Your task to perform on an android device: Go to network settings Image 0: 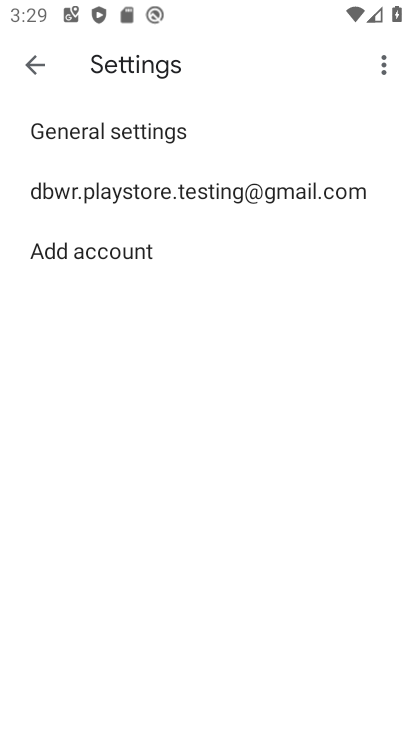
Step 0: press home button
Your task to perform on an android device: Go to network settings Image 1: 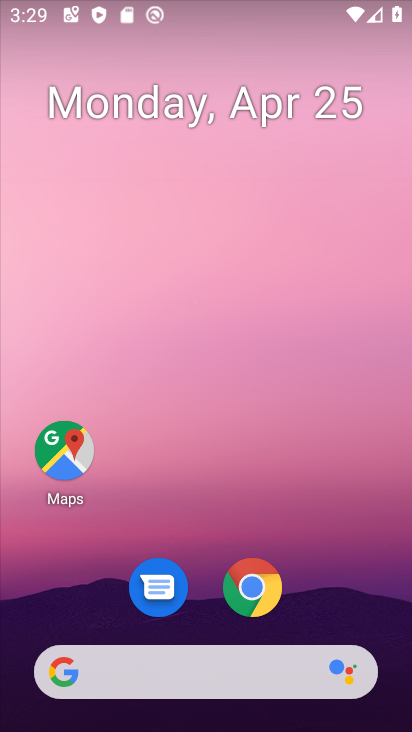
Step 1: drag from (214, 607) to (237, 111)
Your task to perform on an android device: Go to network settings Image 2: 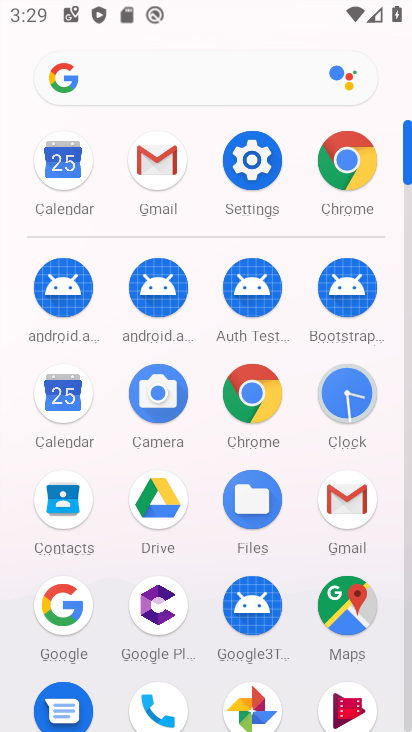
Step 2: click (251, 160)
Your task to perform on an android device: Go to network settings Image 3: 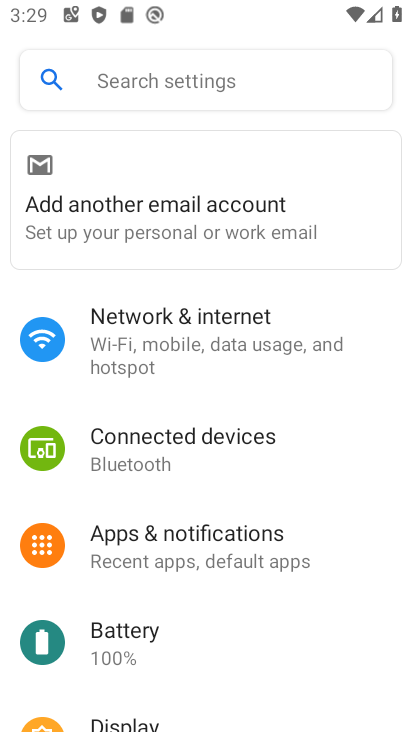
Step 3: click (184, 311)
Your task to perform on an android device: Go to network settings Image 4: 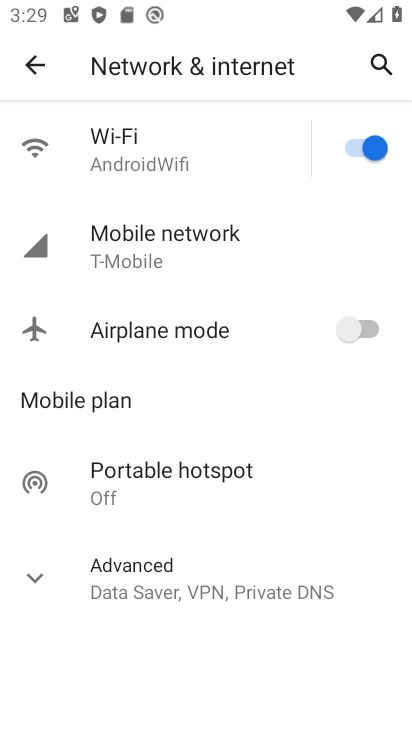
Step 4: click (162, 144)
Your task to perform on an android device: Go to network settings Image 5: 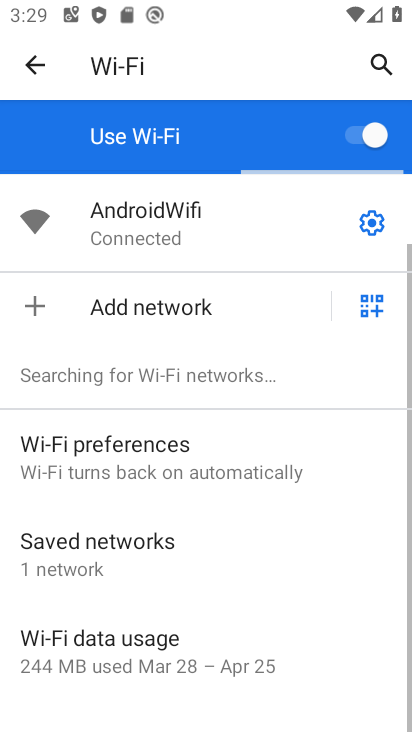
Step 5: click (199, 211)
Your task to perform on an android device: Go to network settings Image 6: 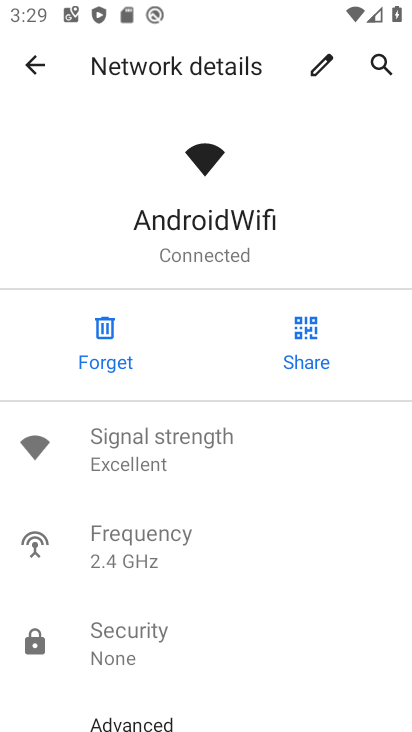
Step 6: task complete